Your task to perform on an android device: open app "HBO Max: Stream TV & Movies" Image 0: 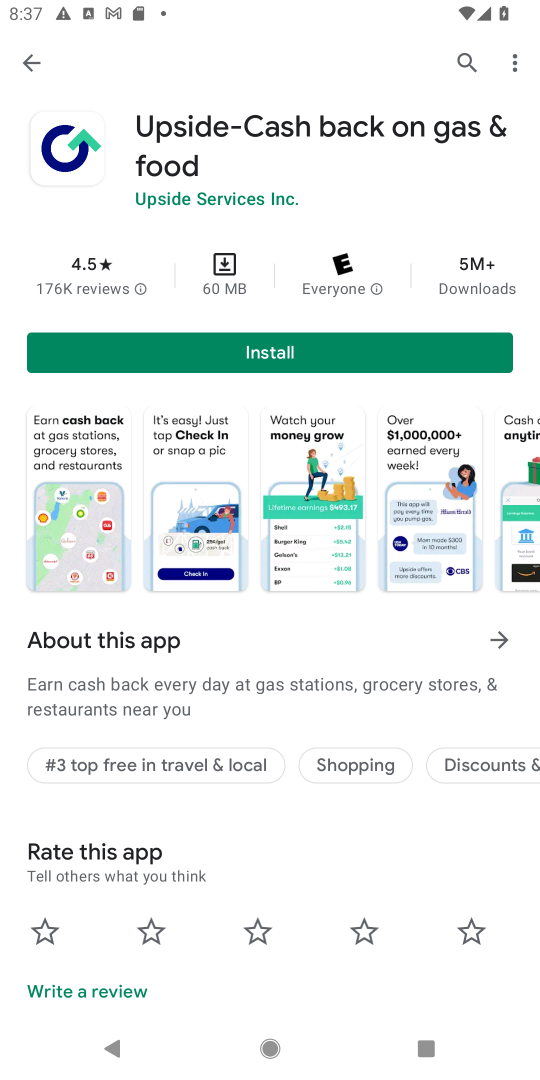
Step 0: press home button
Your task to perform on an android device: open app "HBO Max: Stream TV & Movies" Image 1: 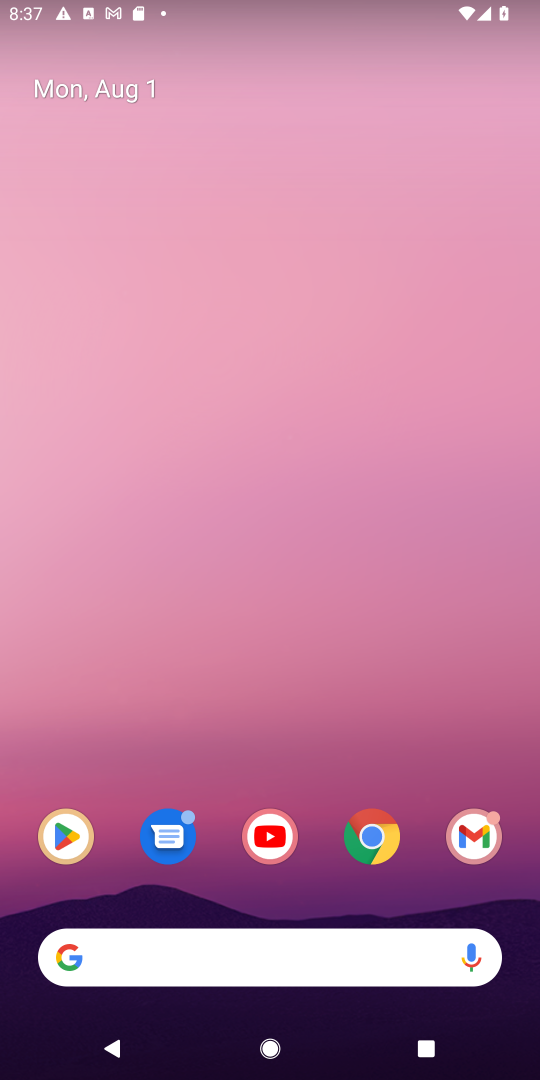
Step 1: click (60, 841)
Your task to perform on an android device: open app "HBO Max: Stream TV & Movies" Image 2: 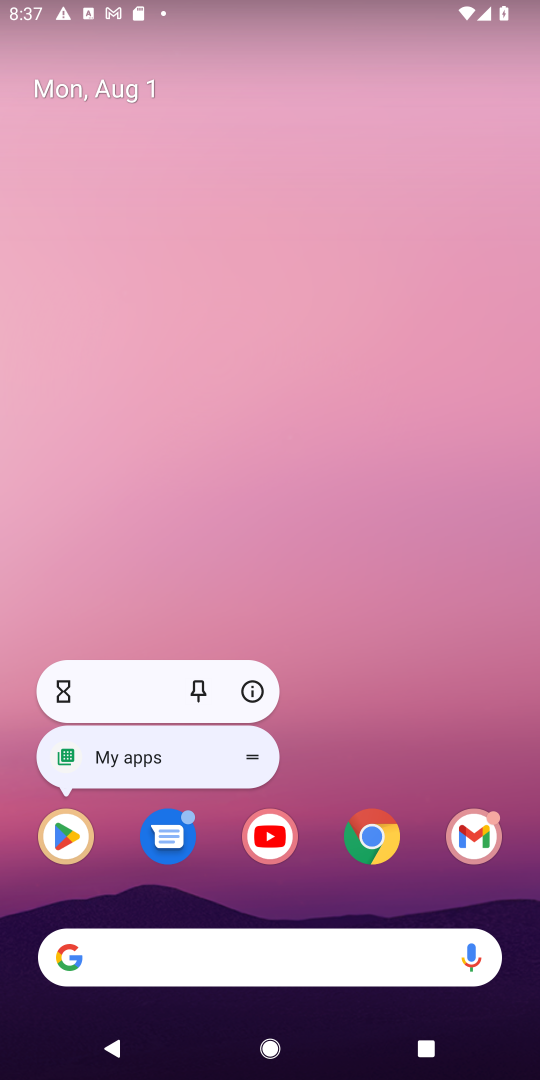
Step 2: click (60, 843)
Your task to perform on an android device: open app "HBO Max: Stream TV & Movies" Image 3: 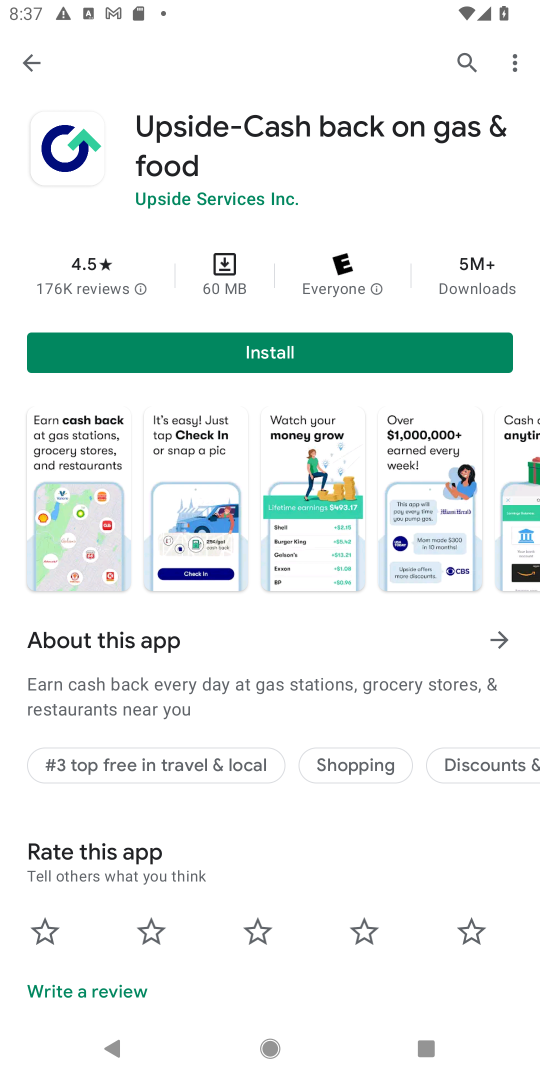
Step 3: click (461, 54)
Your task to perform on an android device: open app "HBO Max: Stream TV & Movies" Image 4: 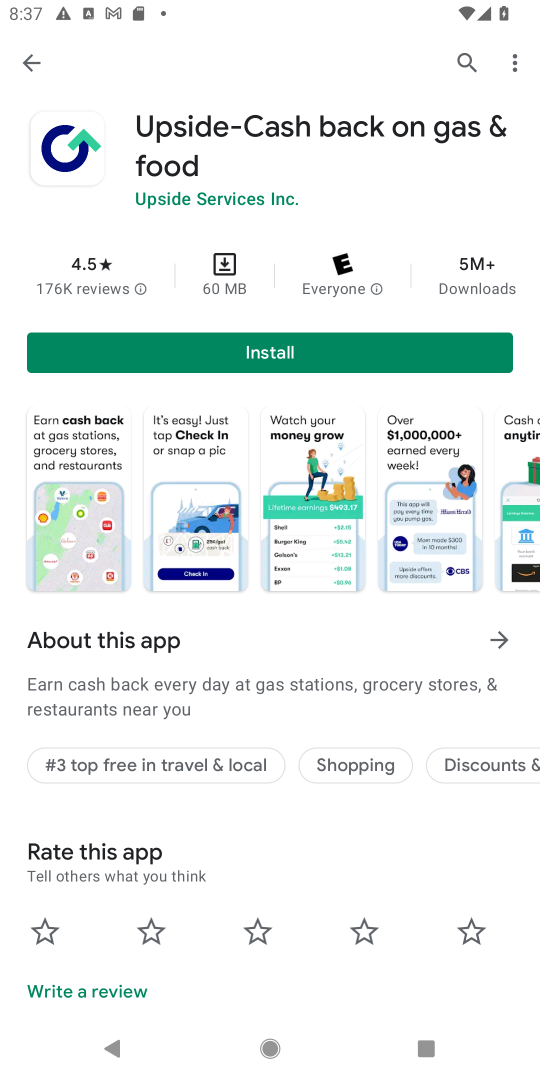
Step 4: click (464, 61)
Your task to perform on an android device: open app "HBO Max: Stream TV & Movies" Image 5: 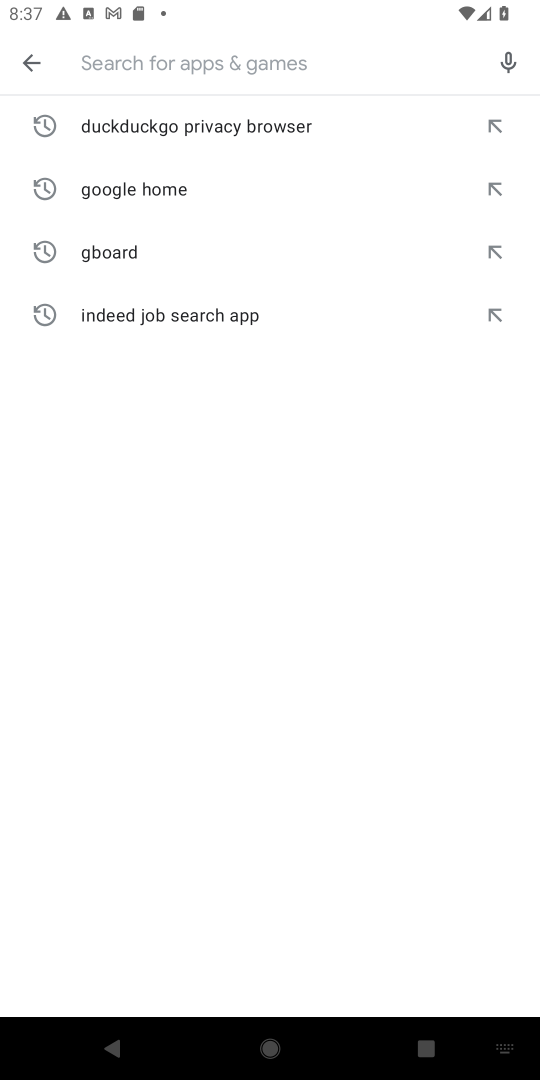
Step 5: type "HBO Max: Stream TV & Movies"
Your task to perform on an android device: open app "HBO Max: Stream TV & Movies" Image 6: 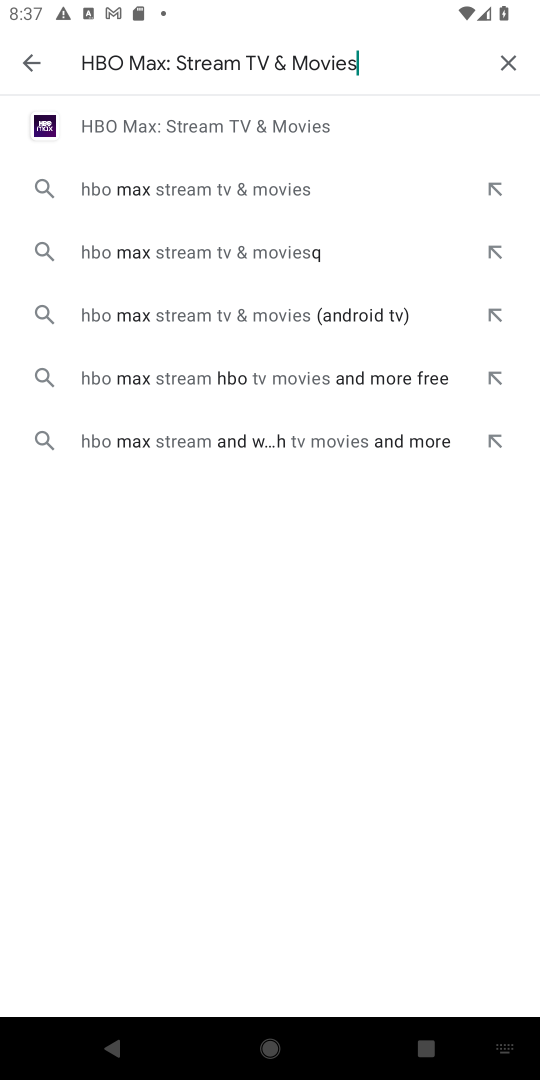
Step 6: click (267, 126)
Your task to perform on an android device: open app "HBO Max: Stream TV & Movies" Image 7: 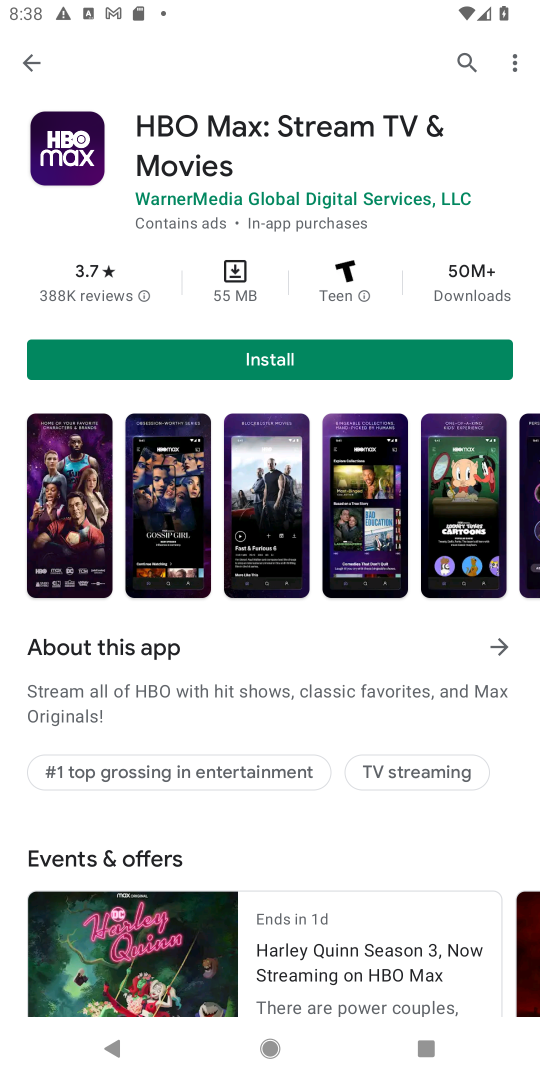
Step 7: task complete